Your task to perform on an android device: Open eBay Image 0: 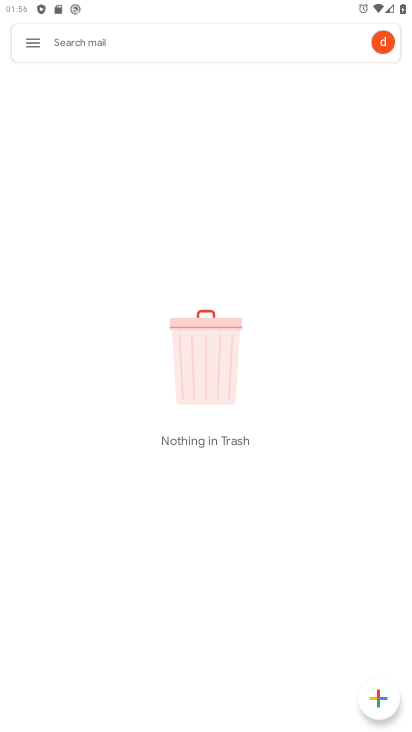
Step 0: press home button
Your task to perform on an android device: Open eBay Image 1: 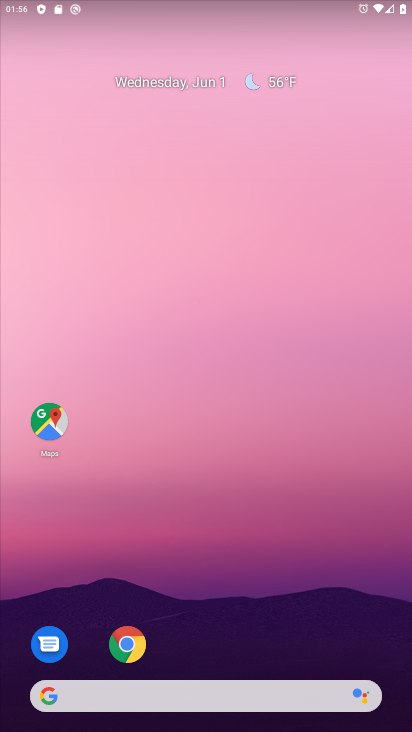
Step 1: drag from (155, 643) to (171, 292)
Your task to perform on an android device: Open eBay Image 2: 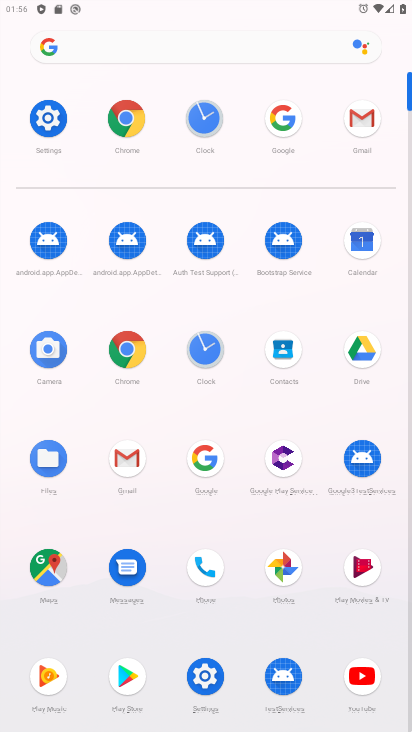
Step 2: click (126, 124)
Your task to perform on an android device: Open eBay Image 3: 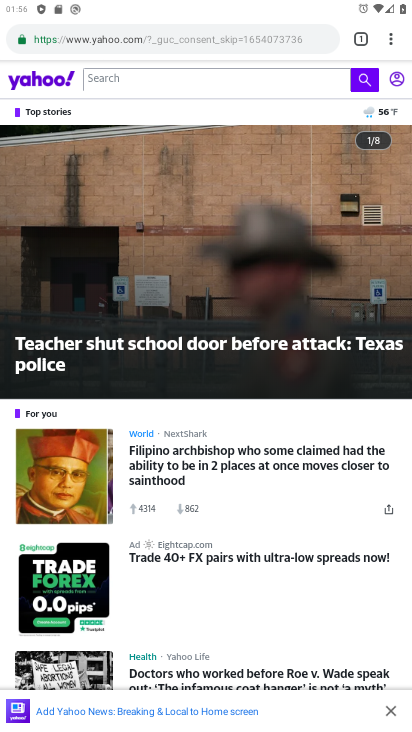
Step 3: click (387, 38)
Your task to perform on an android device: Open eBay Image 4: 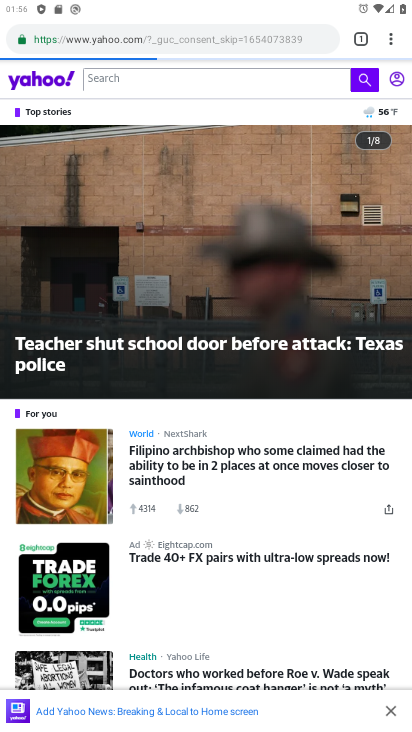
Step 4: click (387, 38)
Your task to perform on an android device: Open eBay Image 5: 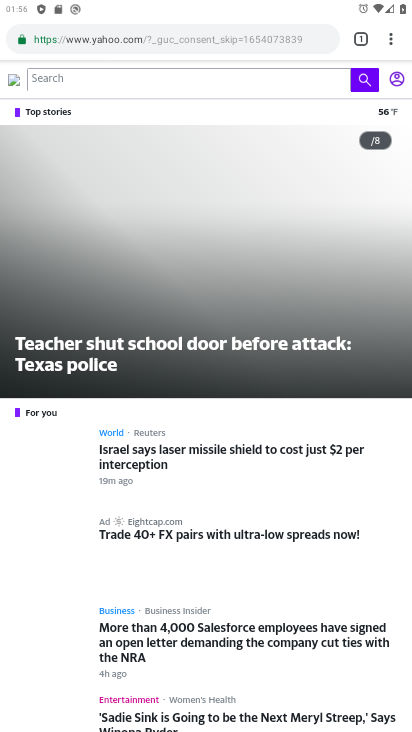
Step 5: click (359, 36)
Your task to perform on an android device: Open eBay Image 6: 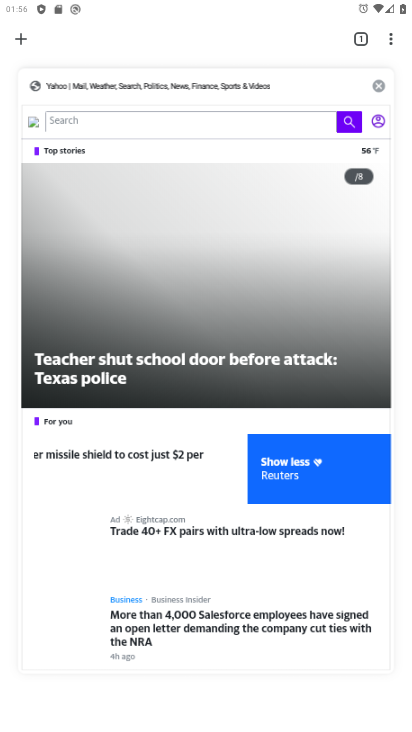
Step 6: click (378, 84)
Your task to perform on an android device: Open eBay Image 7: 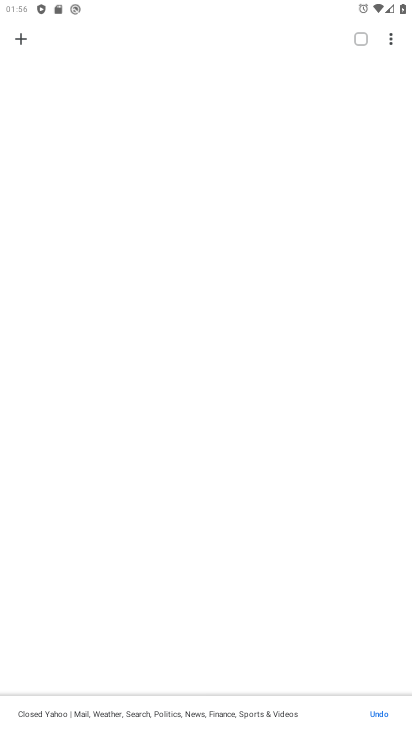
Step 7: click (23, 35)
Your task to perform on an android device: Open eBay Image 8: 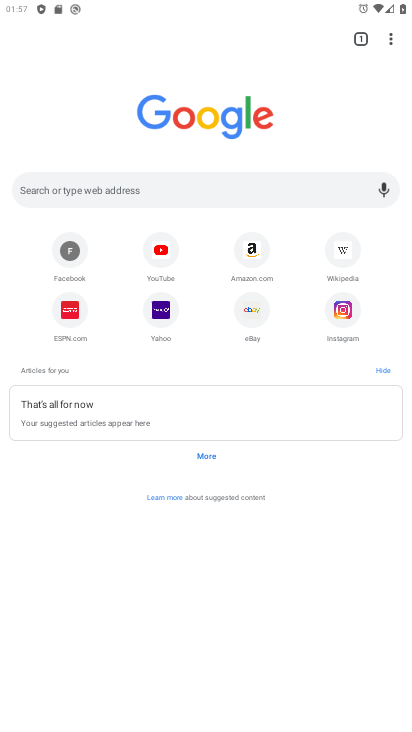
Step 8: click (249, 299)
Your task to perform on an android device: Open eBay Image 9: 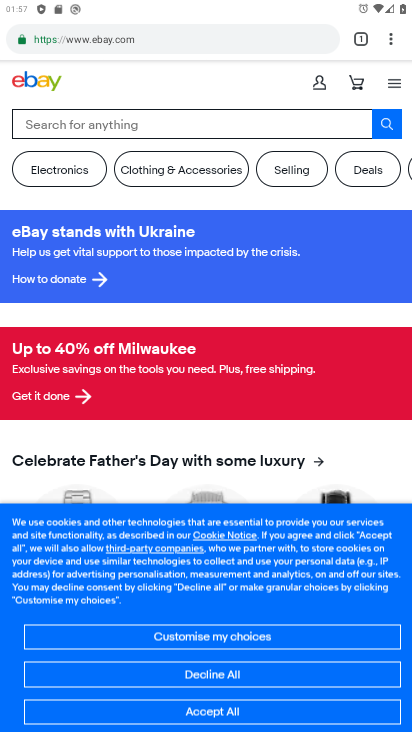
Step 9: task complete